Your task to perform on an android device: snooze an email in the gmail app Image 0: 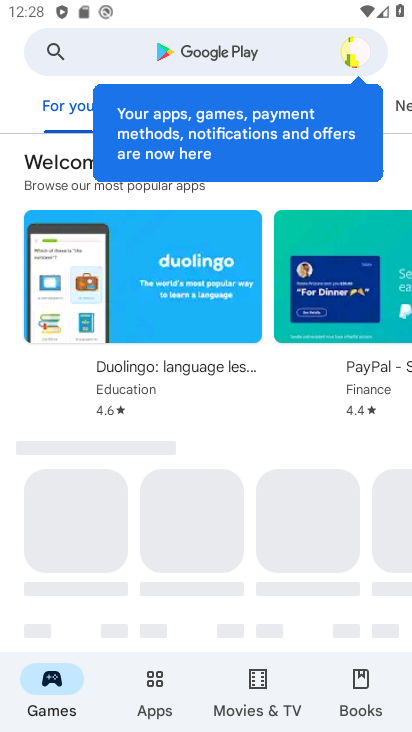
Step 0: press home button
Your task to perform on an android device: snooze an email in the gmail app Image 1: 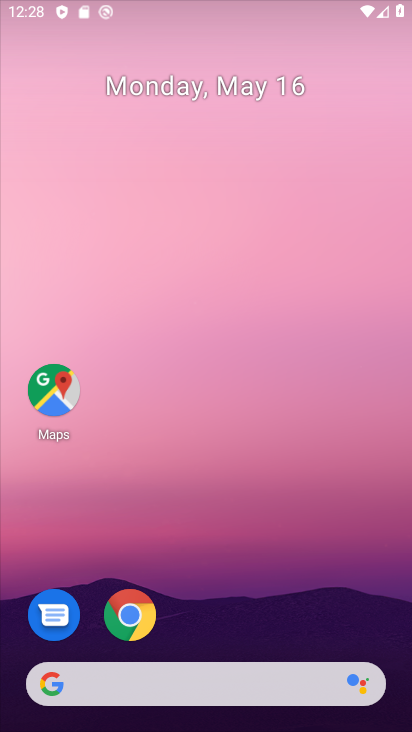
Step 1: drag from (298, 434) to (264, 42)
Your task to perform on an android device: snooze an email in the gmail app Image 2: 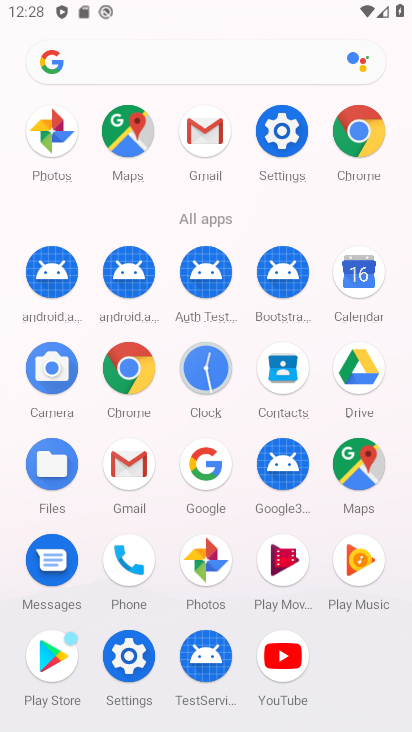
Step 2: click (214, 148)
Your task to perform on an android device: snooze an email in the gmail app Image 3: 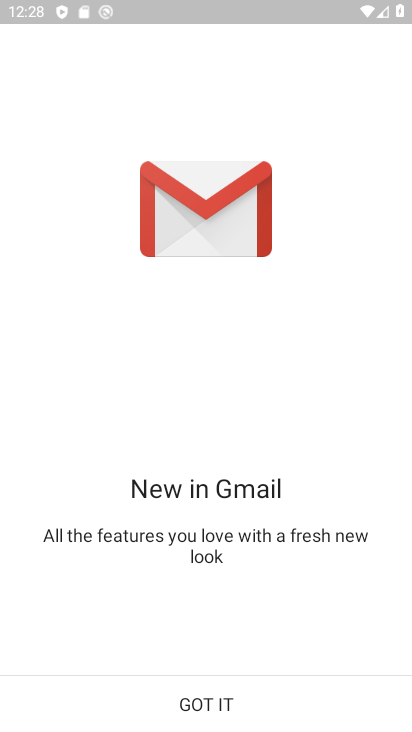
Step 3: click (192, 693)
Your task to perform on an android device: snooze an email in the gmail app Image 4: 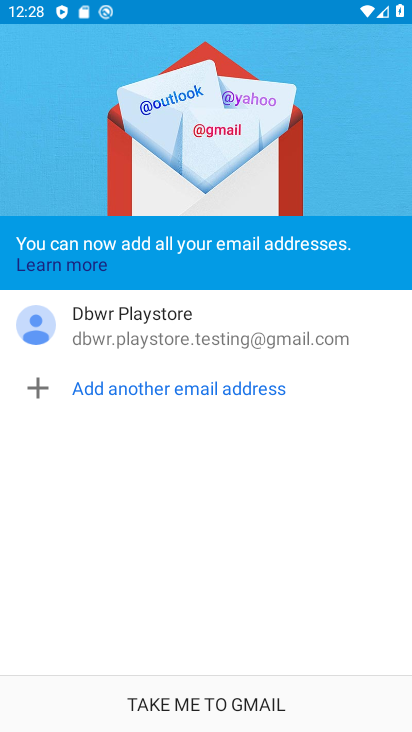
Step 4: click (206, 706)
Your task to perform on an android device: snooze an email in the gmail app Image 5: 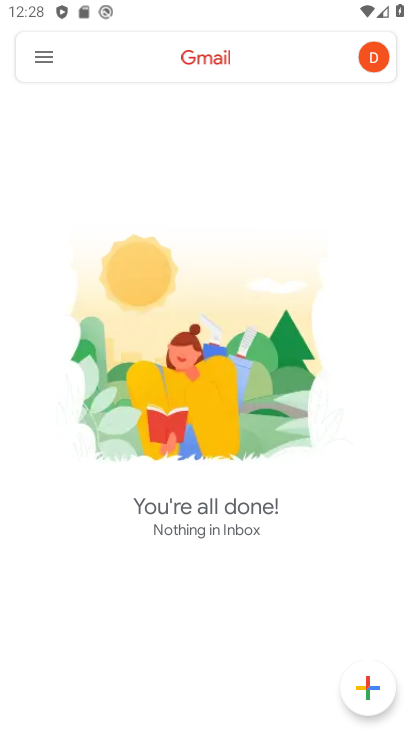
Step 5: click (38, 39)
Your task to perform on an android device: snooze an email in the gmail app Image 6: 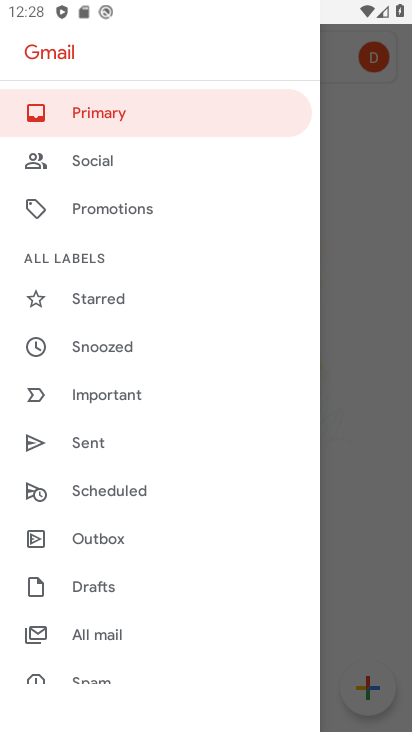
Step 6: click (107, 625)
Your task to perform on an android device: snooze an email in the gmail app Image 7: 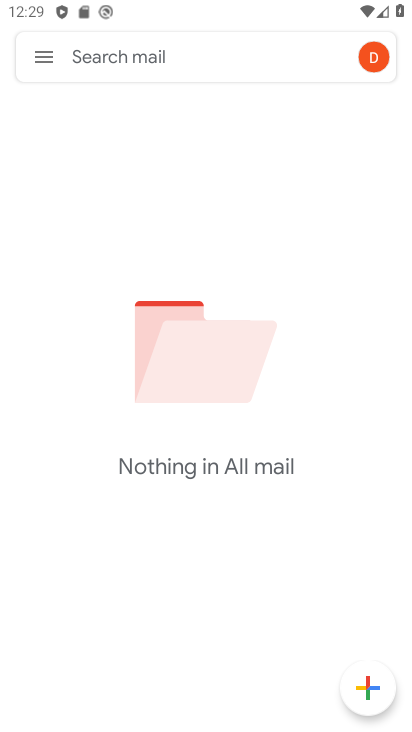
Step 7: task complete